Your task to perform on an android device: turn off data saver in the chrome app Image 0: 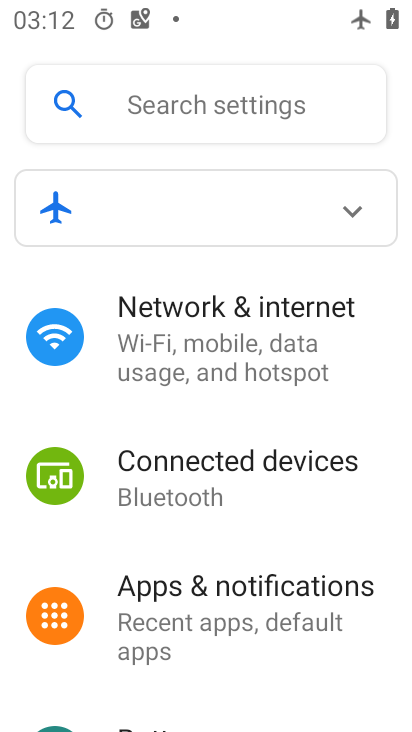
Step 0: press home button
Your task to perform on an android device: turn off data saver in the chrome app Image 1: 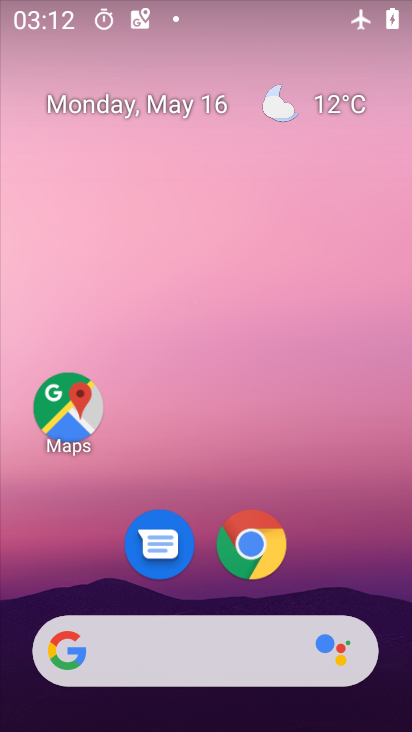
Step 1: click (250, 551)
Your task to perform on an android device: turn off data saver in the chrome app Image 2: 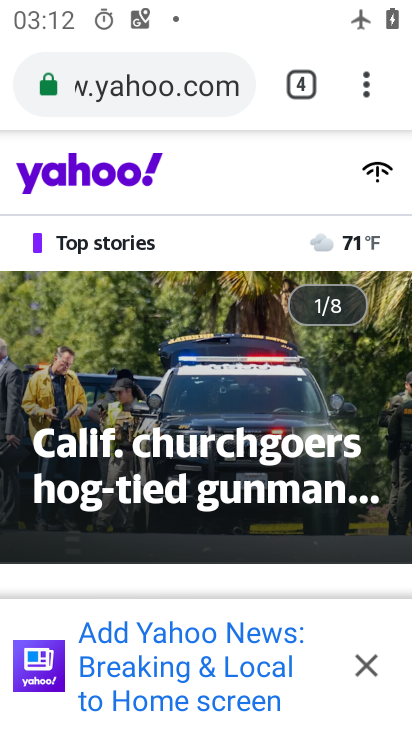
Step 2: click (363, 93)
Your task to perform on an android device: turn off data saver in the chrome app Image 3: 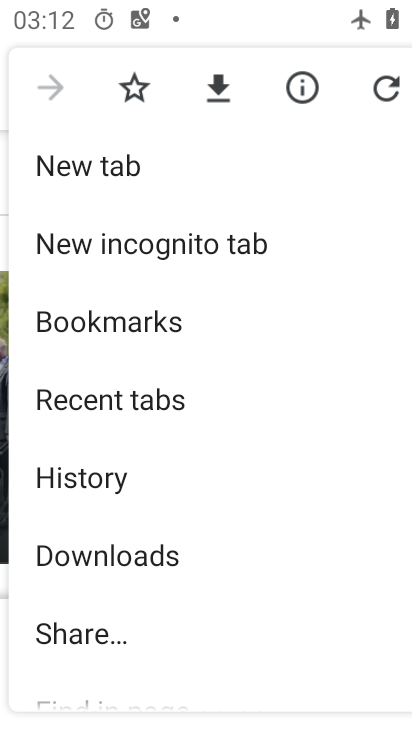
Step 3: drag from (126, 646) to (147, 279)
Your task to perform on an android device: turn off data saver in the chrome app Image 4: 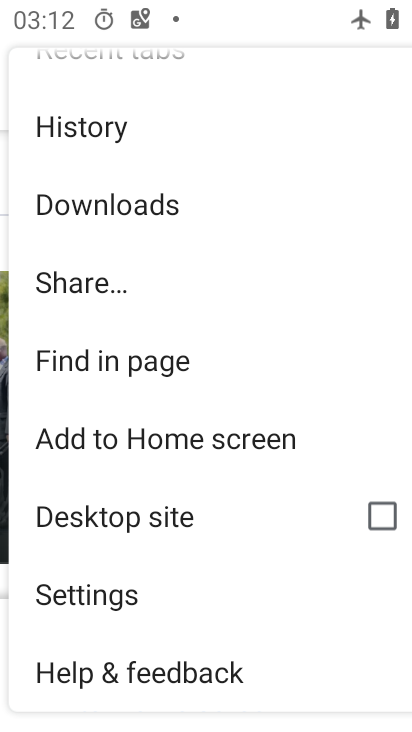
Step 4: click (100, 588)
Your task to perform on an android device: turn off data saver in the chrome app Image 5: 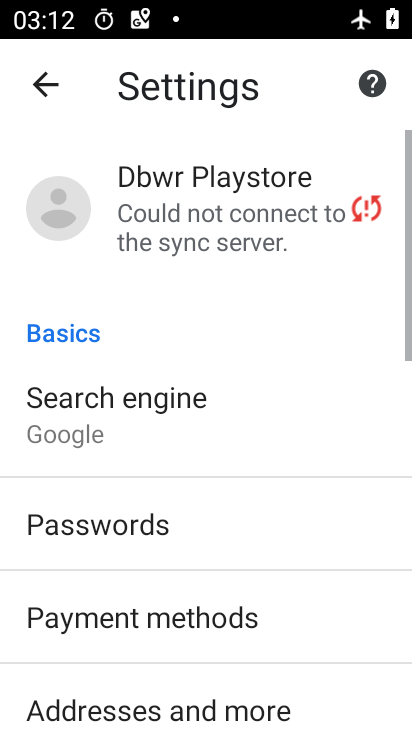
Step 5: drag from (115, 583) to (127, 336)
Your task to perform on an android device: turn off data saver in the chrome app Image 6: 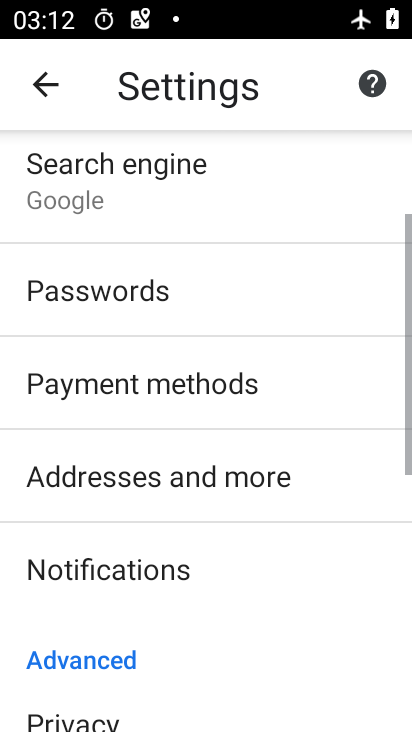
Step 6: drag from (157, 690) to (201, 312)
Your task to perform on an android device: turn off data saver in the chrome app Image 7: 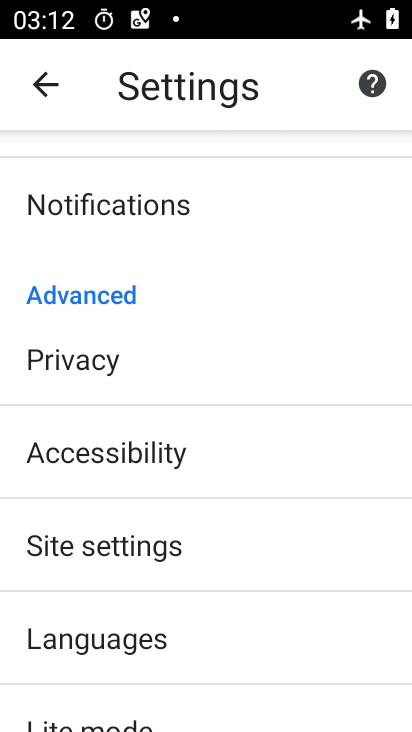
Step 7: drag from (126, 680) to (164, 434)
Your task to perform on an android device: turn off data saver in the chrome app Image 8: 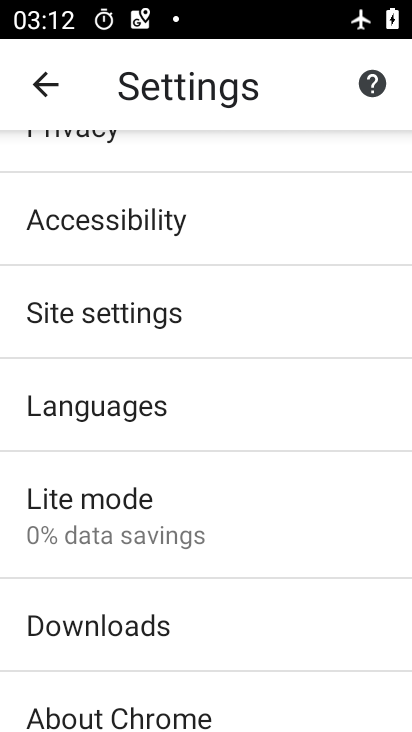
Step 8: click (109, 518)
Your task to perform on an android device: turn off data saver in the chrome app Image 9: 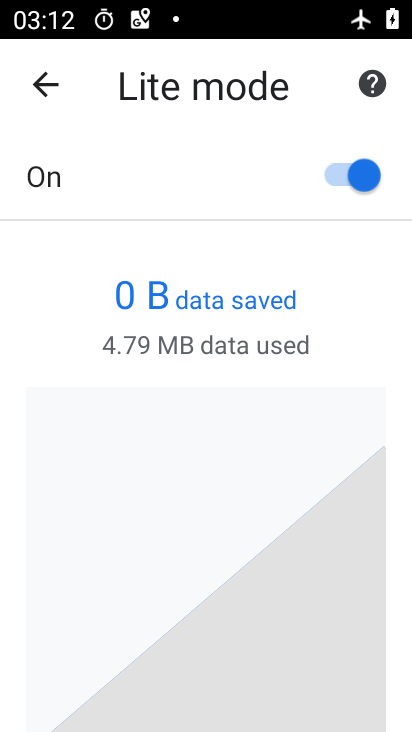
Step 9: click (331, 172)
Your task to perform on an android device: turn off data saver in the chrome app Image 10: 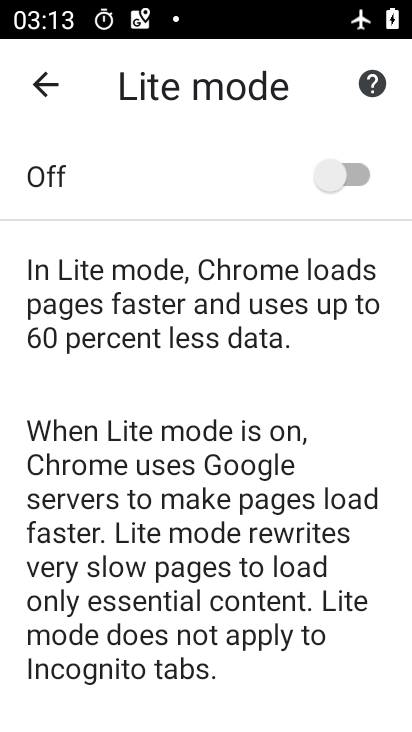
Step 10: task complete